Your task to perform on an android device: turn off data saver in the chrome app Image 0: 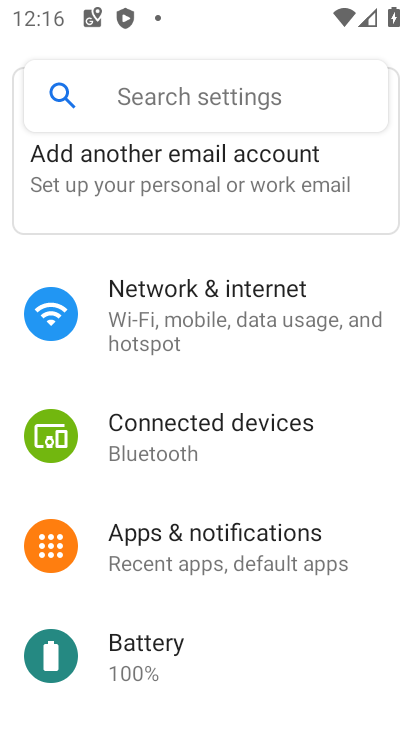
Step 0: press home button
Your task to perform on an android device: turn off data saver in the chrome app Image 1: 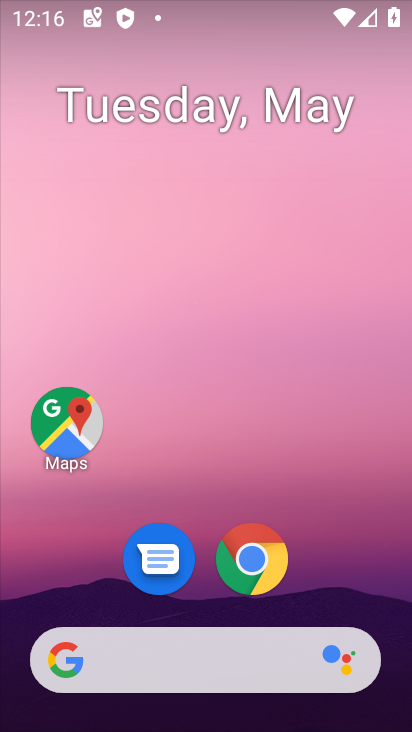
Step 1: drag from (349, 572) to (324, 327)
Your task to perform on an android device: turn off data saver in the chrome app Image 2: 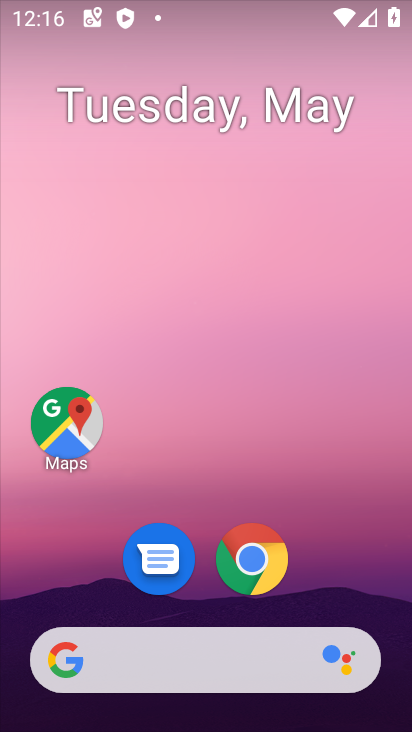
Step 2: click (268, 547)
Your task to perform on an android device: turn off data saver in the chrome app Image 3: 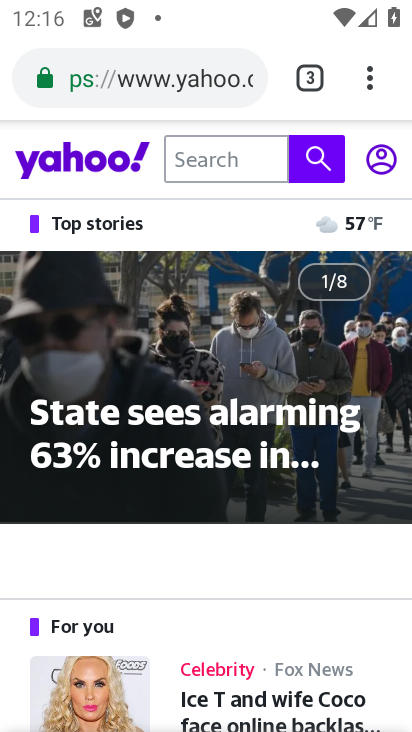
Step 3: click (364, 89)
Your task to perform on an android device: turn off data saver in the chrome app Image 4: 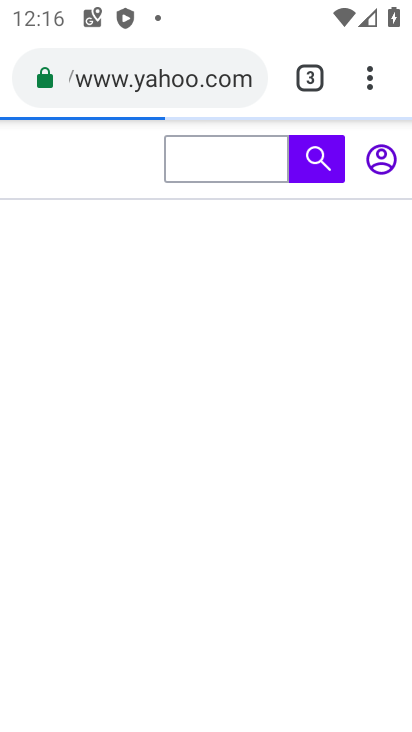
Step 4: click (382, 92)
Your task to perform on an android device: turn off data saver in the chrome app Image 5: 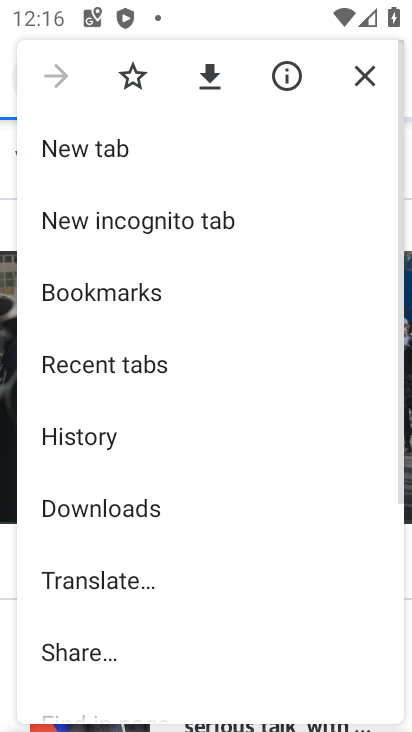
Step 5: drag from (196, 601) to (247, 347)
Your task to perform on an android device: turn off data saver in the chrome app Image 6: 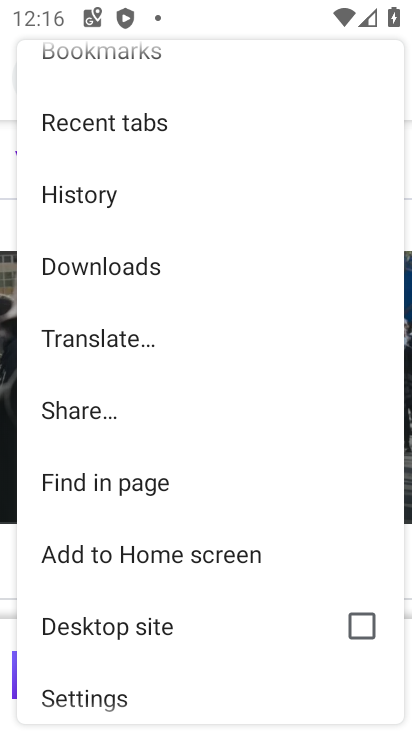
Step 6: click (147, 684)
Your task to perform on an android device: turn off data saver in the chrome app Image 7: 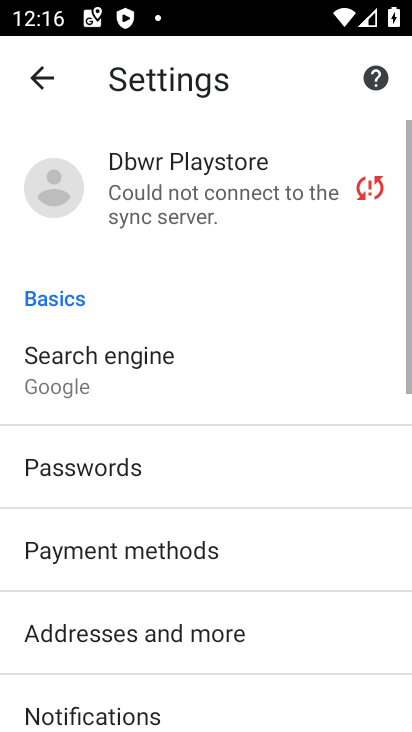
Step 7: drag from (238, 585) to (273, 333)
Your task to perform on an android device: turn off data saver in the chrome app Image 8: 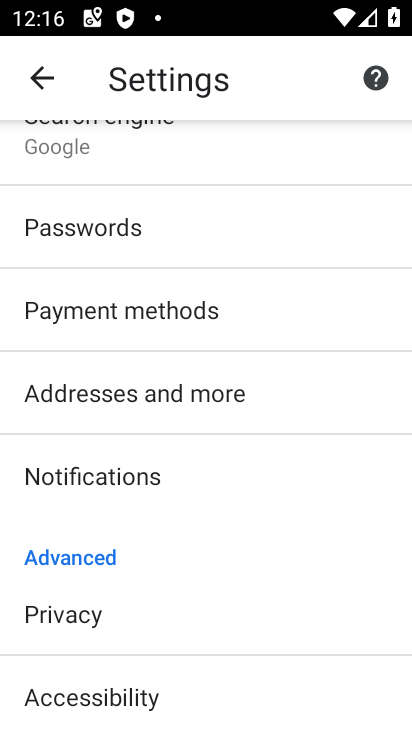
Step 8: drag from (161, 645) to (217, 288)
Your task to perform on an android device: turn off data saver in the chrome app Image 9: 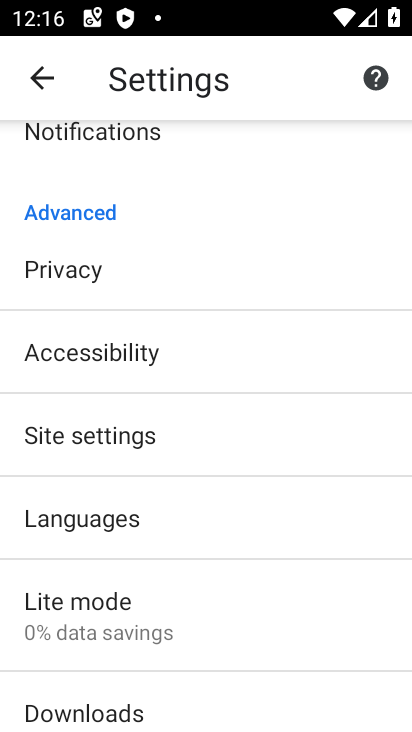
Step 9: click (192, 614)
Your task to perform on an android device: turn off data saver in the chrome app Image 10: 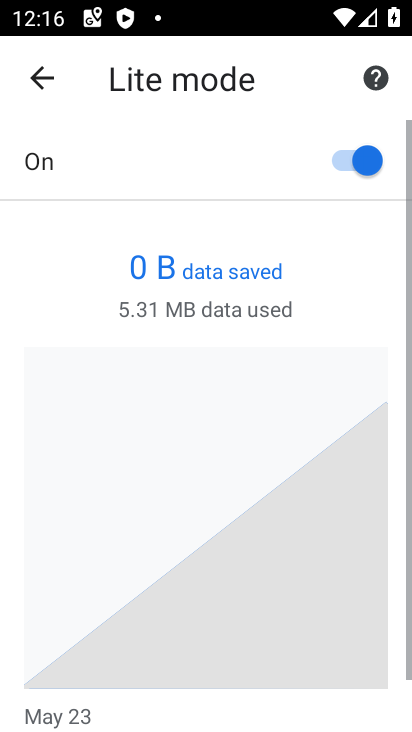
Step 10: click (345, 161)
Your task to perform on an android device: turn off data saver in the chrome app Image 11: 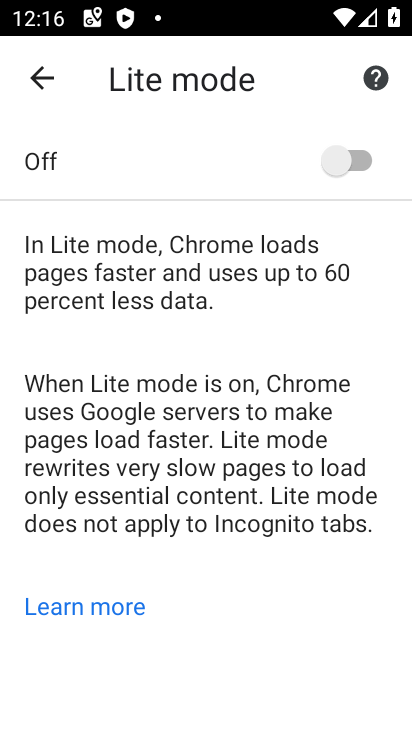
Step 11: task complete